Your task to perform on an android device: Open Google Image 0: 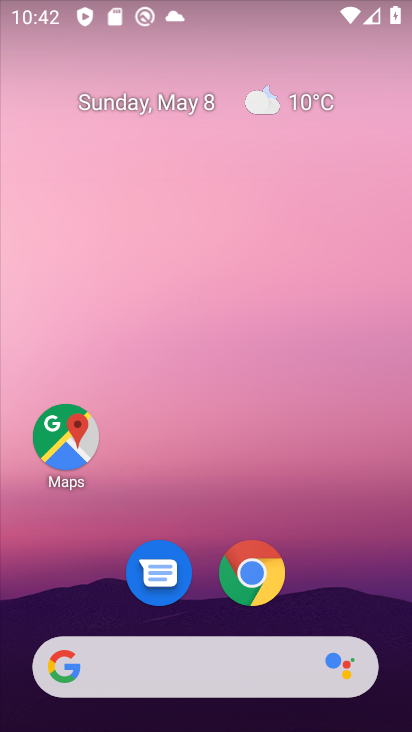
Step 0: drag from (356, 558) to (343, 68)
Your task to perform on an android device: Open Google Image 1: 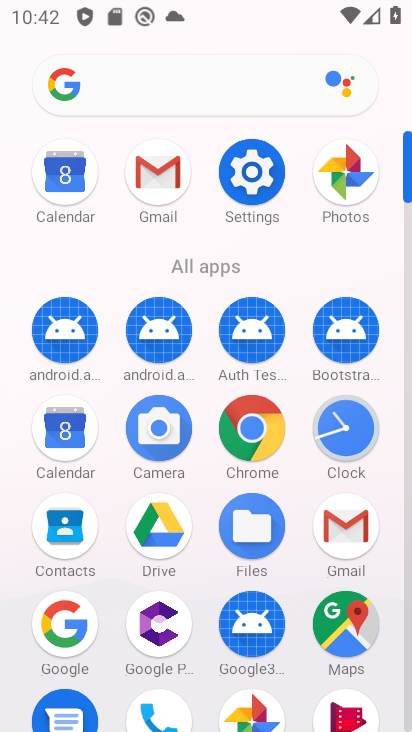
Step 1: click (70, 619)
Your task to perform on an android device: Open Google Image 2: 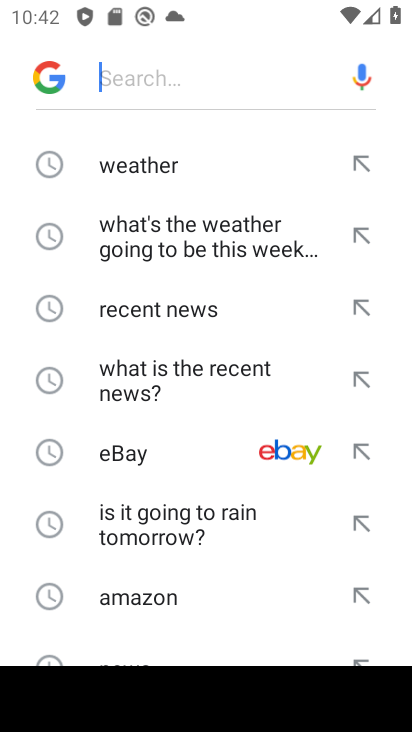
Step 2: task complete